Your task to perform on an android device: Set the phone to "Do not disturb". Image 0: 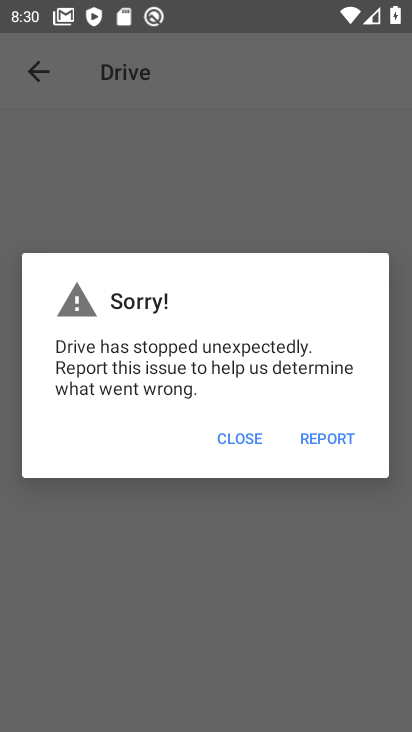
Step 0: press home button
Your task to perform on an android device: Set the phone to "Do not disturb". Image 1: 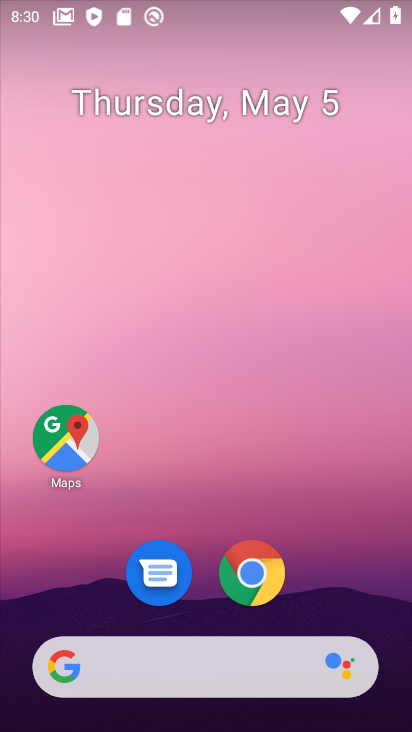
Step 1: drag from (196, 468) to (251, 46)
Your task to perform on an android device: Set the phone to "Do not disturb". Image 2: 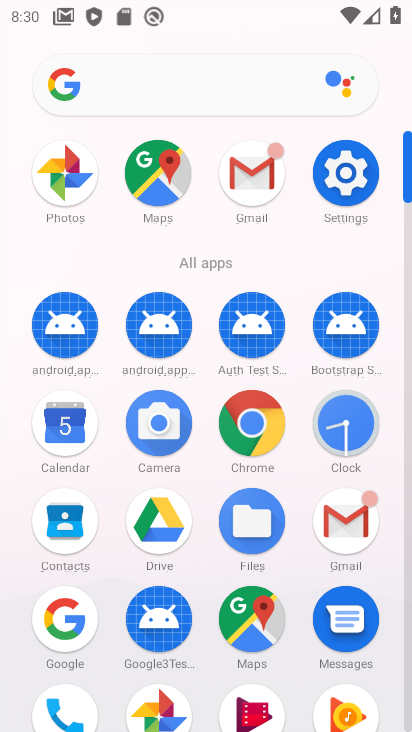
Step 2: click (331, 179)
Your task to perform on an android device: Set the phone to "Do not disturb". Image 3: 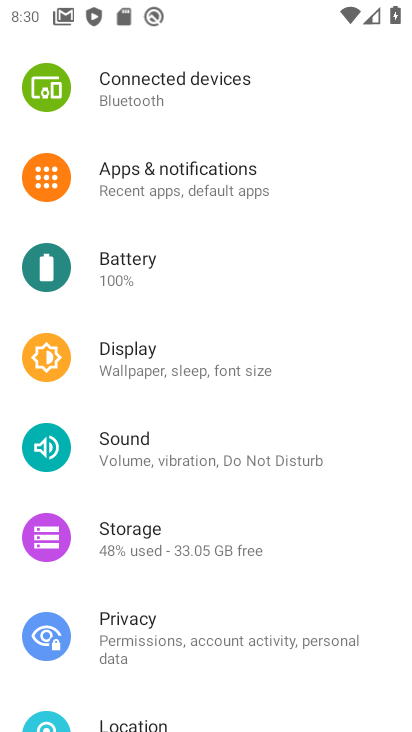
Step 3: click (184, 459)
Your task to perform on an android device: Set the phone to "Do not disturb". Image 4: 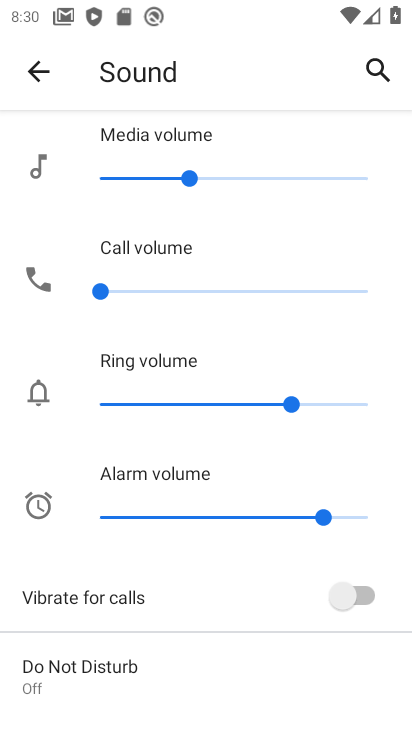
Step 4: click (134, 671)
Your task to perform on an android device: Set the phone to "Do not disturb". Image 5: 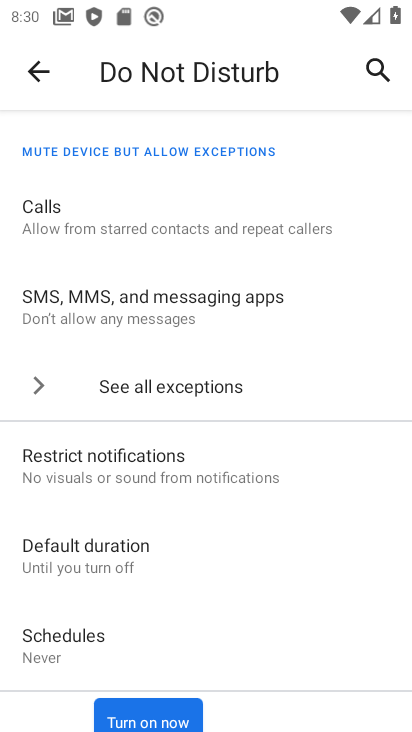
Step 5: click (155, 720)
Your task to perform on an android device: Set the phone to "Do not disturb". Image 6: 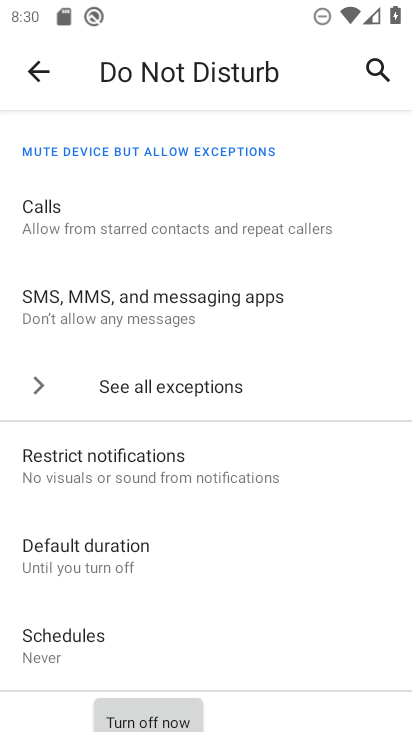
Step 6: task complete